Your task to perform on an android device: Do I have any events tomorrow? Image 0: 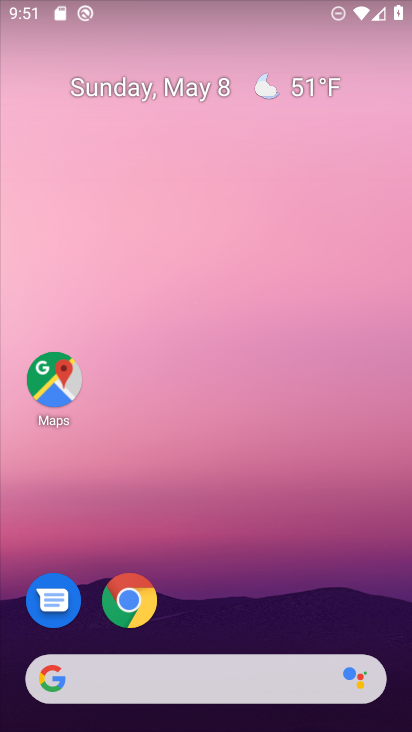
Step 0: drag from (344, 633) to (338, 13)
Your task to perform on an android device: Do I have any events tomorrow? Image 1: 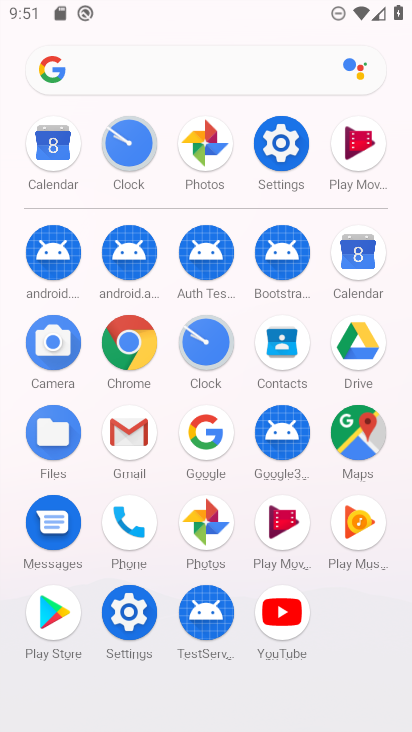
Step 1: click (41, 138)
Your task to perform on an android device: Do I have any events tomorrow? Image 2: 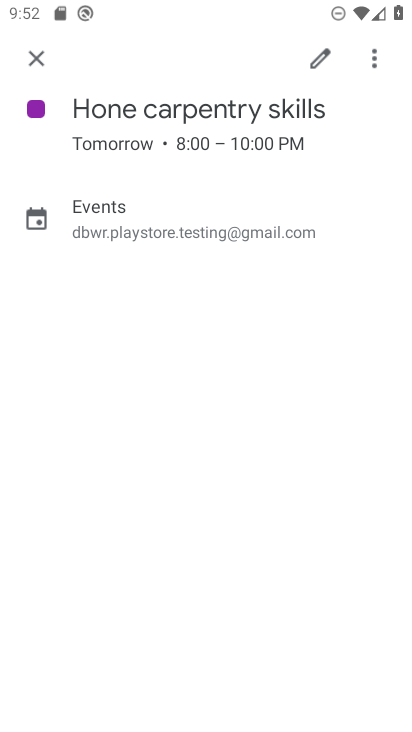
Step 2: click (40, 62)
Your task to perform on an android device: Do I have any events tomorrow? Image 3: 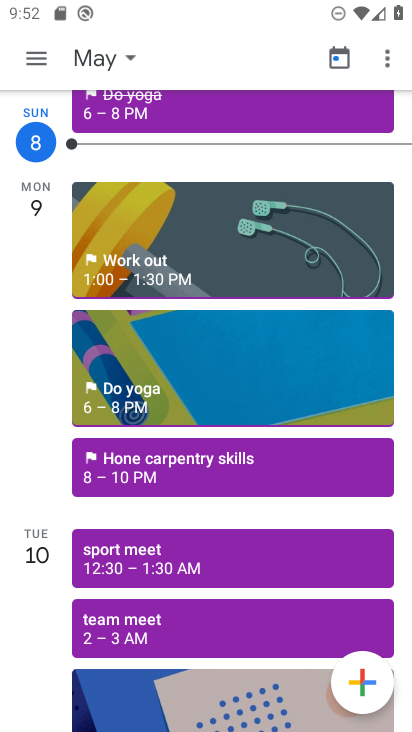
Step 3: click (143, 461)
Your task to perform on an android device: Do I have any events tomorrow? Image 4: 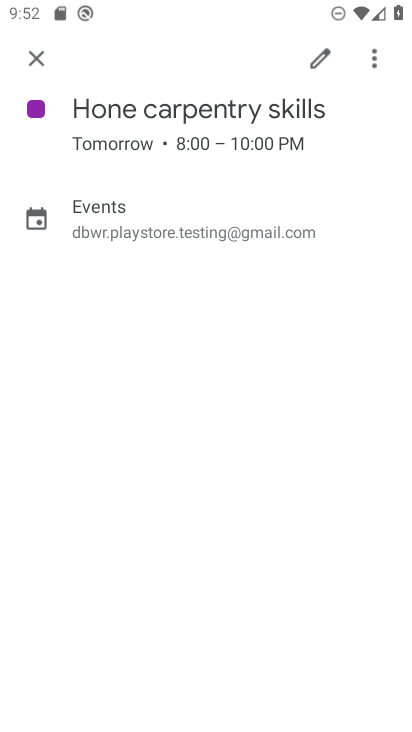
Step 4: task complete